Your task to perform on an android device: show emergency info Image 0: 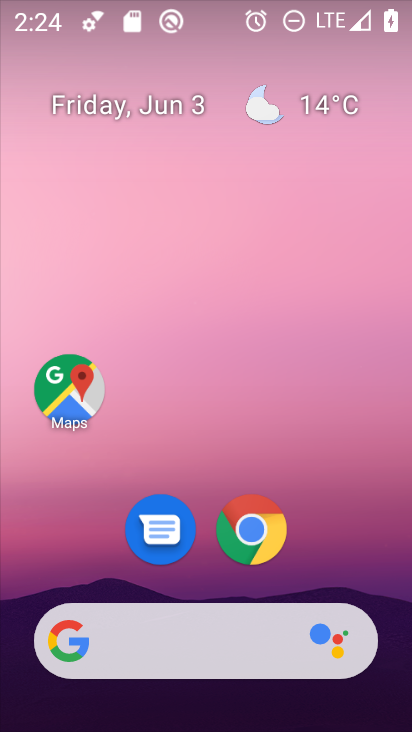
Step 0: drag from (351, 571) to (362, 260)
Your task to perform on an android device: show emergency info Image 1: 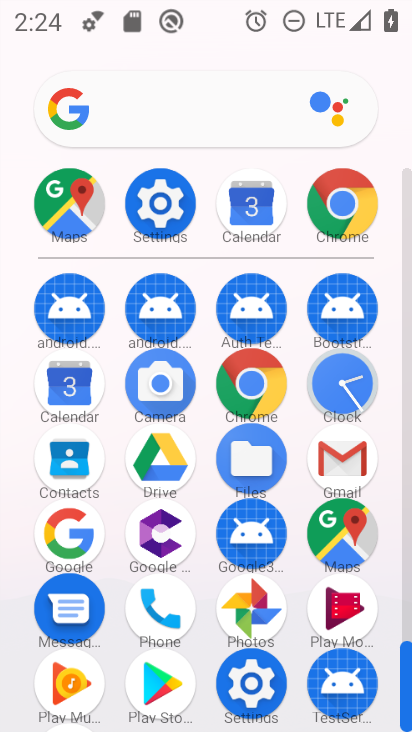
Step 1: click (168, 223)
Your task to perform on an android device: show emergency info Image 2: 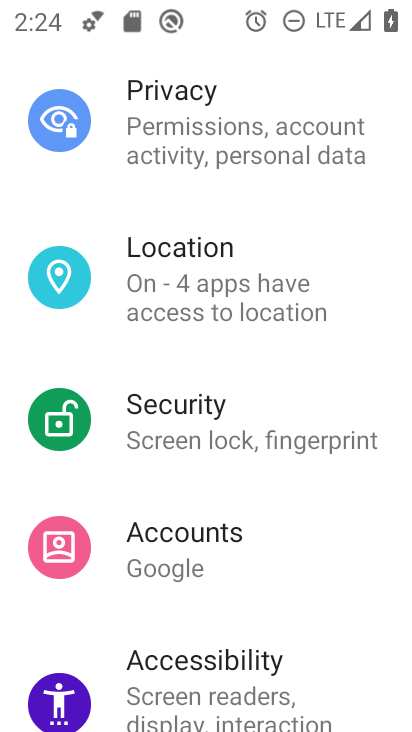
Step 2: drag from (356, 251) to (352, 355)
Your task to perform on an android device: show emergency info Image 3: 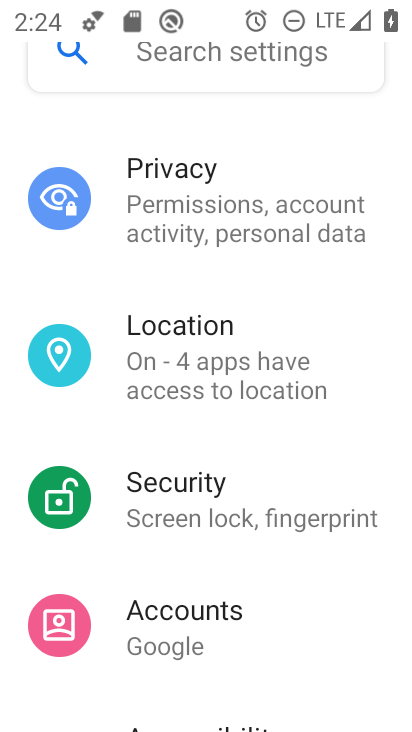
Step 3: drag from (353, 278) to (352, 420)
Your task to perform on an android device: show emergency info Image 4: 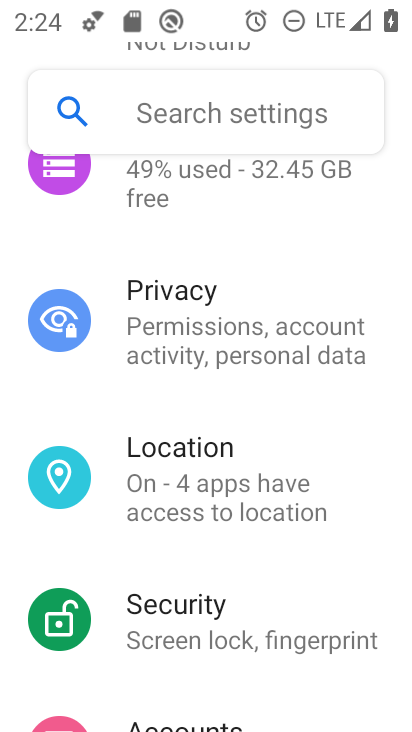
Step 4: drag from (353, 225) to (358, 394)
Your task to perform on an android device: show emergency info Image 5: 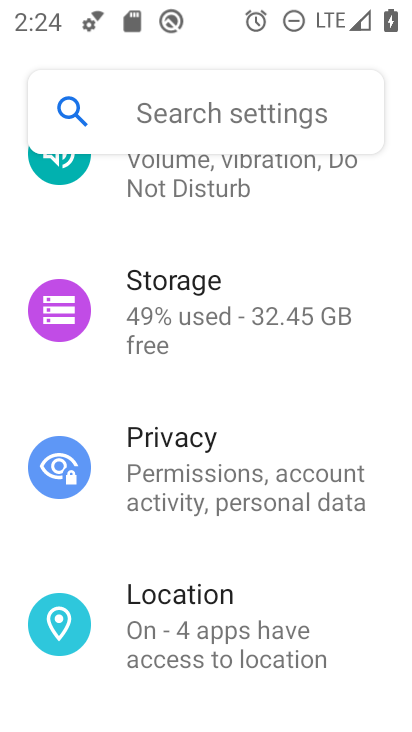
Step 5: drag from (335, 392) to (334, 271)
Your task to perform on an android device: show emergency info Image 6: 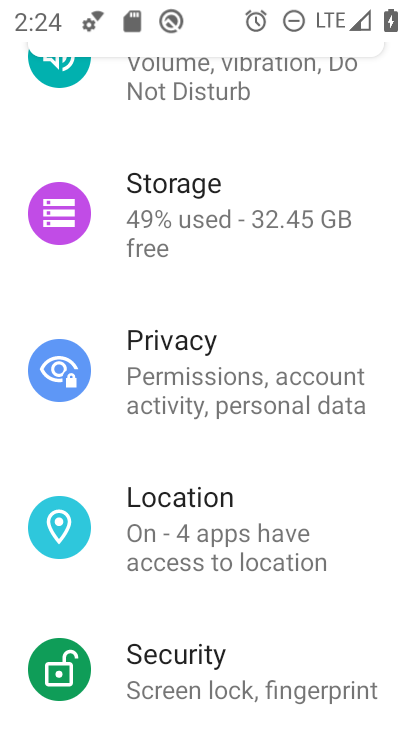
Step 6: drag from (331, 477) to (327, 313)
Your task to perform on an android device: show emergency info Image 7: 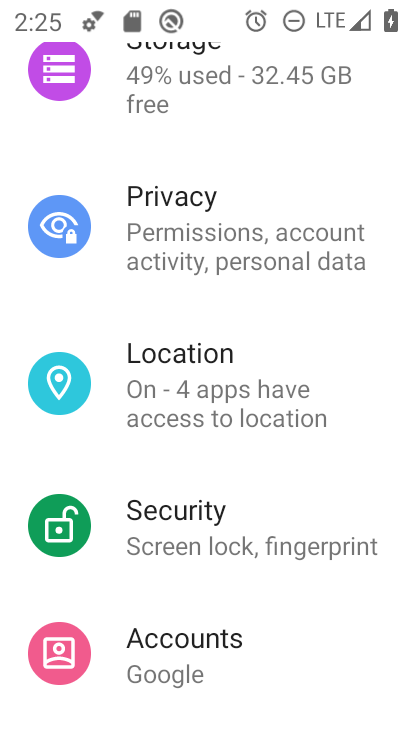
Step 7: drag from (316, 504) to (340, 285)
Your task to perform on an android device: show emergency info Image 8: 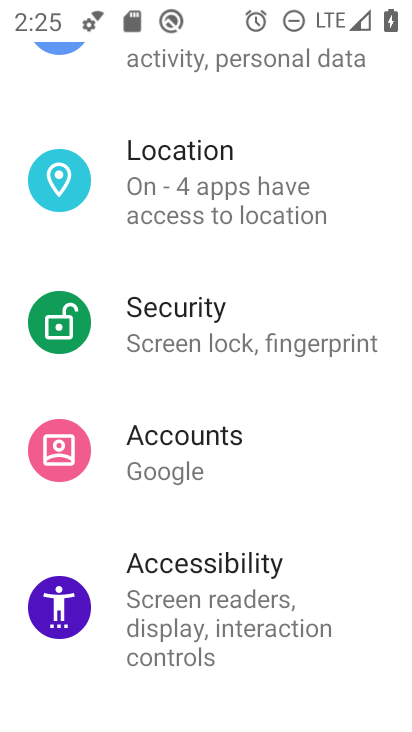
Step 8: drag from (329, 503) to (341, 334)
Your task to perform on an android device: show emergency info Image 9: 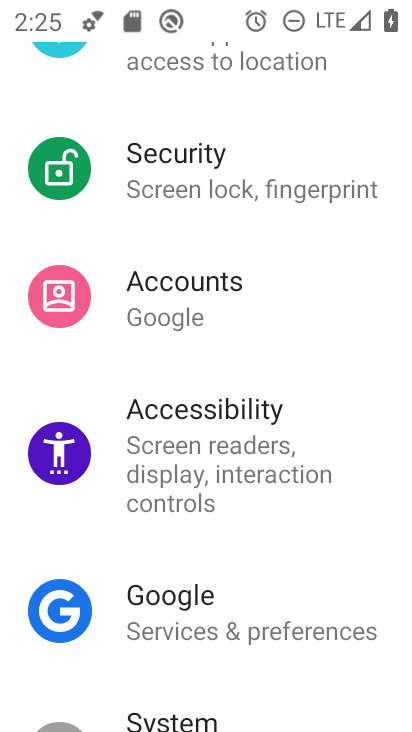
Step 9: drag from (345, 506) to (346, 356)
Your task to perform on an android device: show emergency info Image 10: 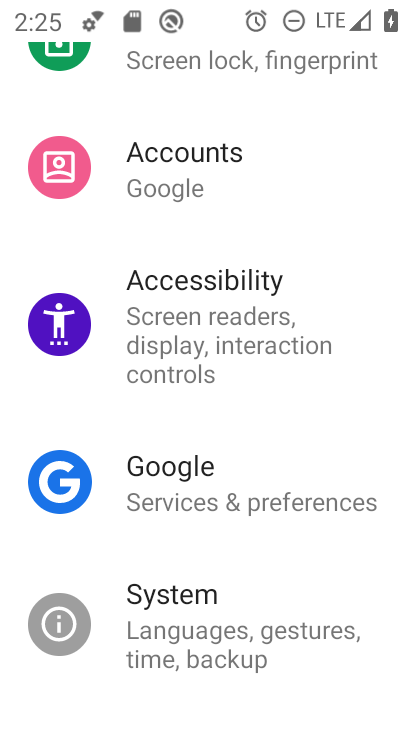
Step 10: drag from (352, 540) to (357, 350)
Your task to perform on an android device: show emergency info Image 11: 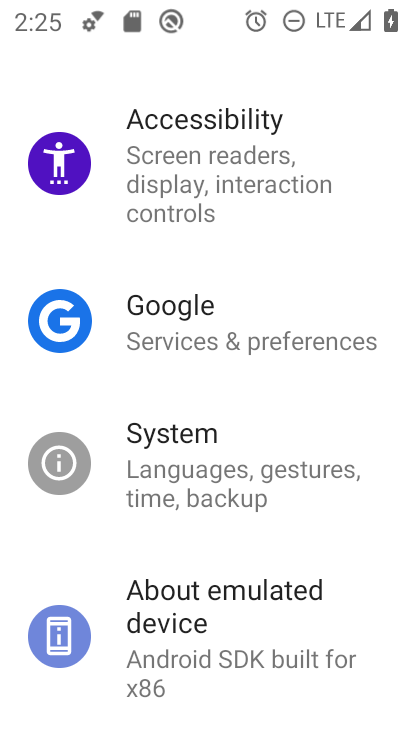
Step 11: drag from (365, 569) to (350, 381)
Your task to perform on an android device: show emergency info Image 12: 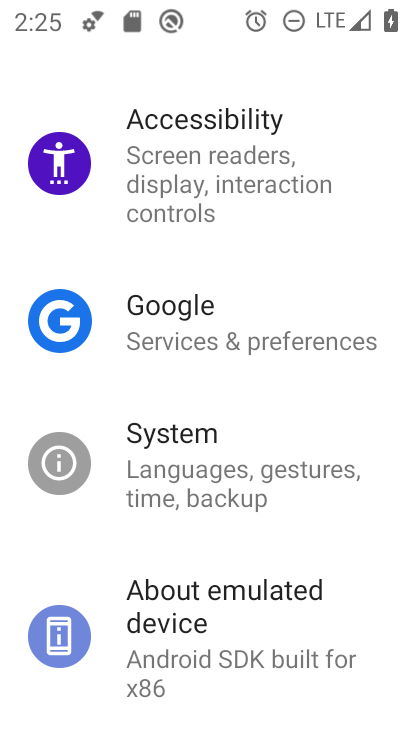
Step 12: click (296, 607)
Your task to perform on an android device: show emergency info Image 13: 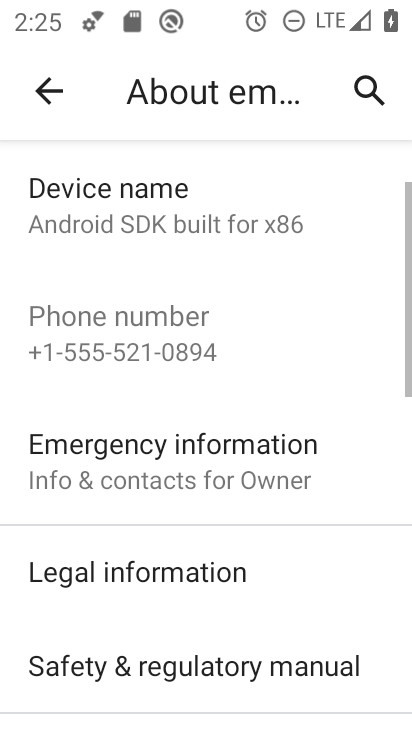
Step 13: click (287, 478)
Your task to perform on an android device: show emergency info Image 14: 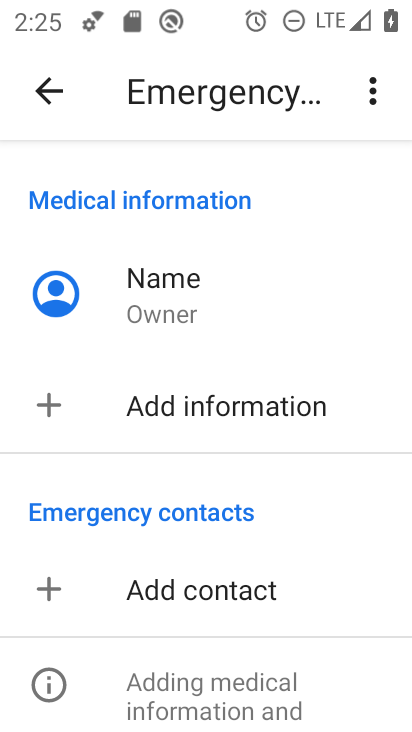
Step 14: task complete